Your task to perform on an android device: What is the price of a 12' ladder at Home Depot? Image 0: 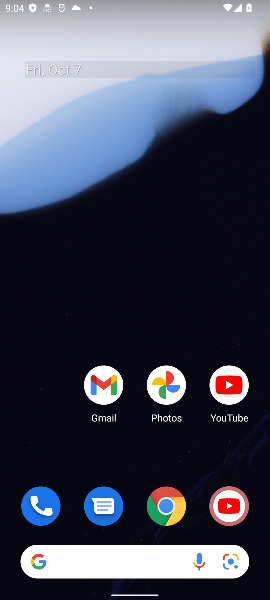
Step 0: click (157, 505)
Your task to perform on an android device: What is the price of a 12' ladder at Home Depot? Image 1: 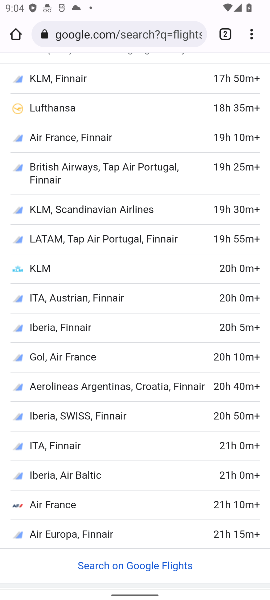
Step 1: click (144, 30)
Your task to perform on an android device: What is the price of a 12' ladder at Home Depot? Image 2: 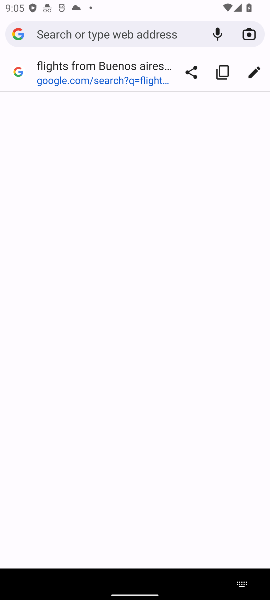
Step 2: type "price of a 12' ladder at Home Depot"
Your task to perform on an android device: What is the price of a 12' ladder at Home Depot? Image 3: 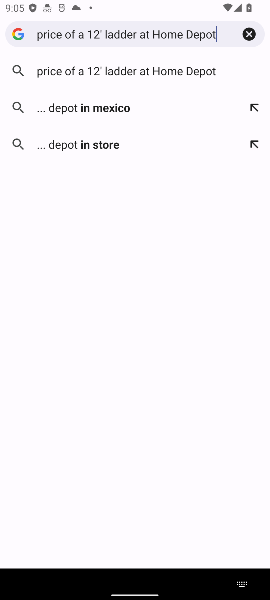
Step 3: click (122, 71)
Your task to perform on an android device: What is the price of a 12' ladder at Home Depot? Image 4: 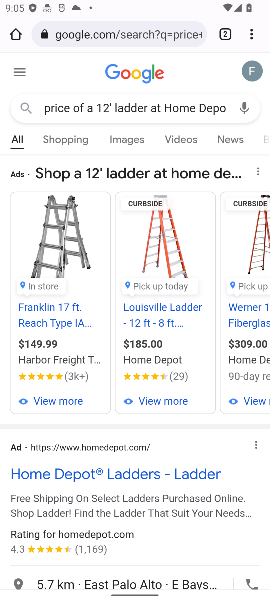
Step 4: drag from (102, 524) to (153, 391)
Your task to perform on an android device: What is the price of a 12' ladder at Home Depot? Image 5: 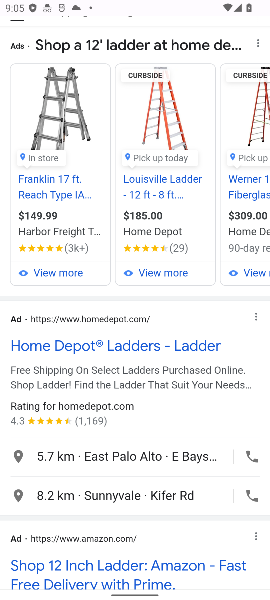
Step 5: click (116, 341)
Your task to perform on an android device: What is the price of a 12' ladder at Home Depot? Image 6: 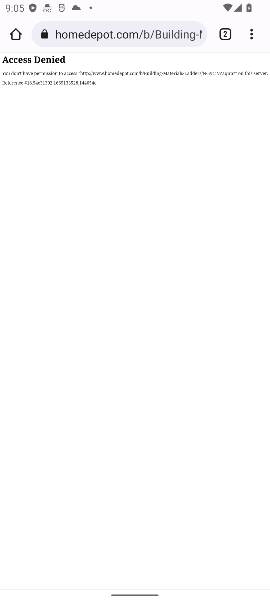
Step 6: task complete